Your task to perform on an android device: Go to Yahoo.com Image 0: 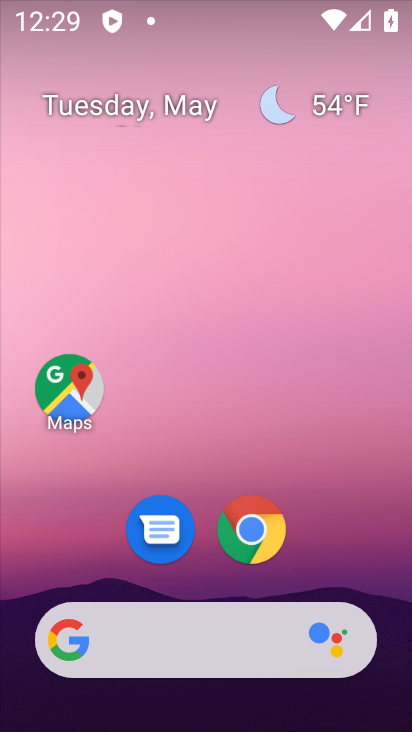
Step 0: click (240, 521)
Your task to perform on an android device: Go to Yahoo.com Image 1: 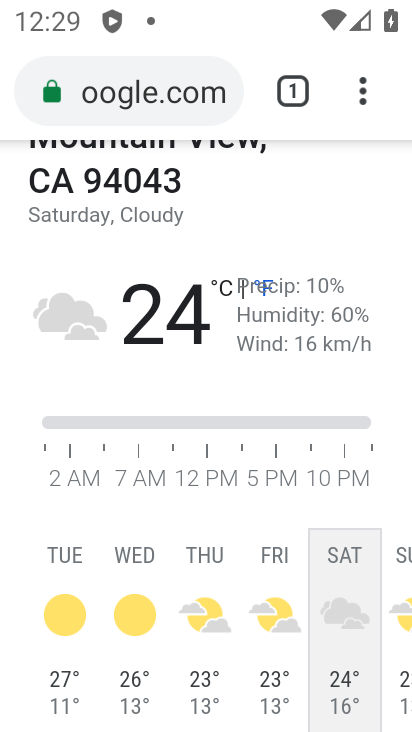
Step 1: click (364, 78)
Your task to perform on an android device: Go to Yahoo.com Image 2: 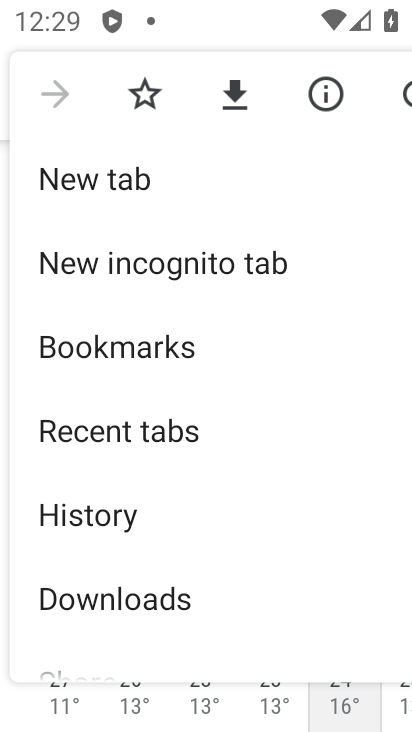
Step 2: click (149, 148)
Your task to perform on an android device: Go to Yahoo.com Image 3: 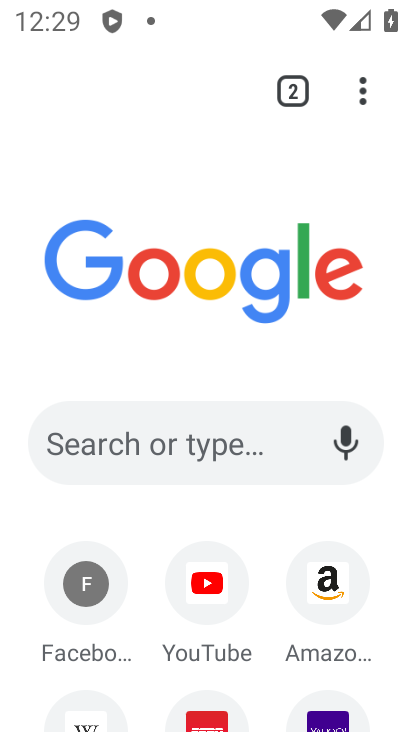
Step 3: drag from (160, 617) to (182, 407)
Your task to perform on an android device: Go to Yahoo.com Image 4: 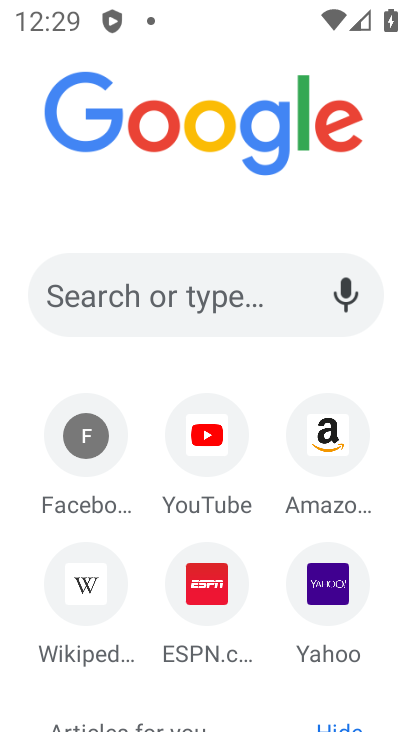
Step 4: click (328, 574)
Your task to perform on an android device: Go to Yahoo.com Image 5: 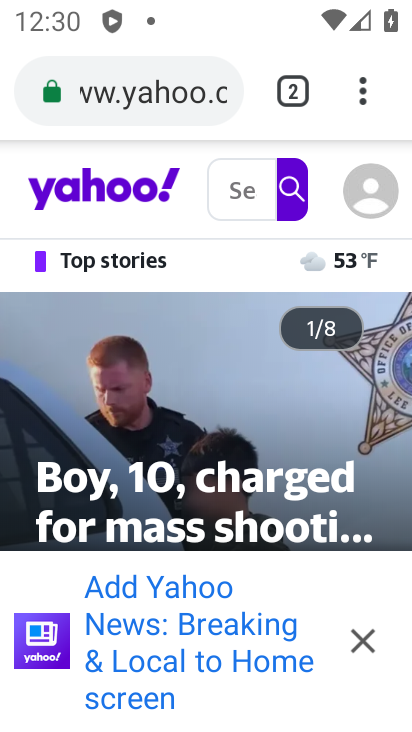
Step 5: task complete